Your task to perform on an android device: turn off picture-in-picture Image 0: 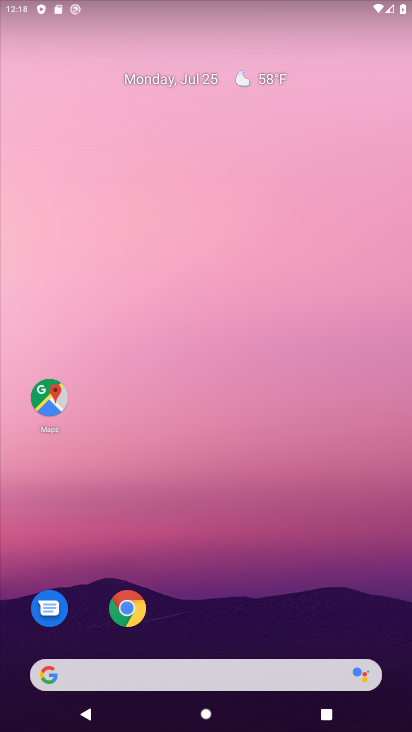
Step 0: click (127, 609)
Your task to perform on an android device: turn off picture-in-picture Image 1: 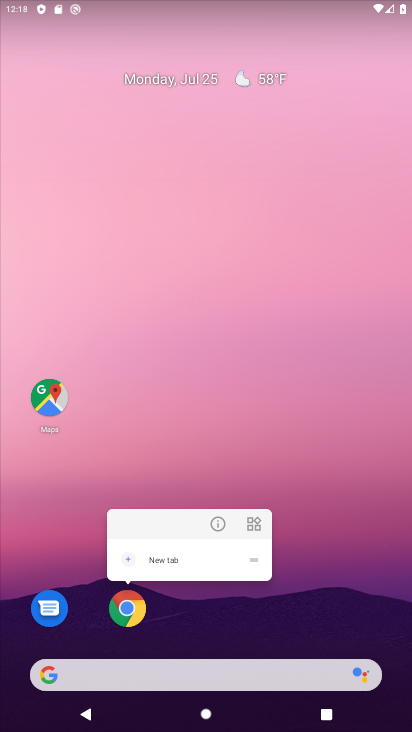
Step 1: click (219, 521)
Your task to perform on an android device: turn off picture-in-picture Image 2: 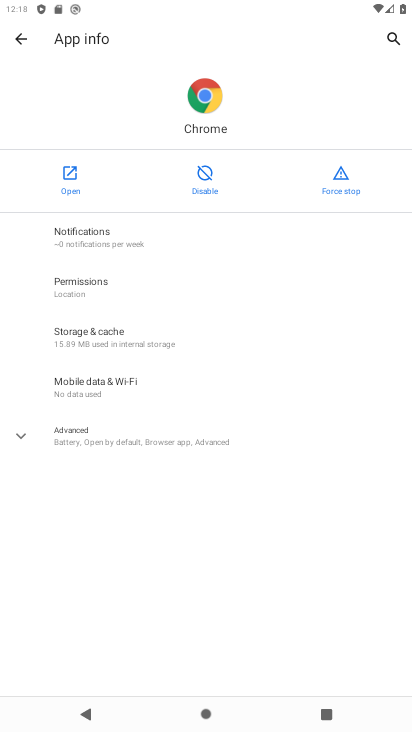
Step 2: click (129, 435)
Your task to perform on an android device: turn off picture-in-picture Image 3: 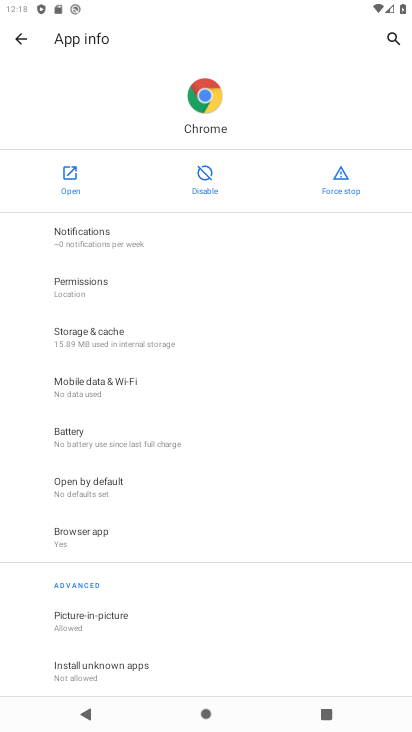
Step 3: click (79, 625)
Your task to perform on an android device: turn off picture-in-picture Image 4: 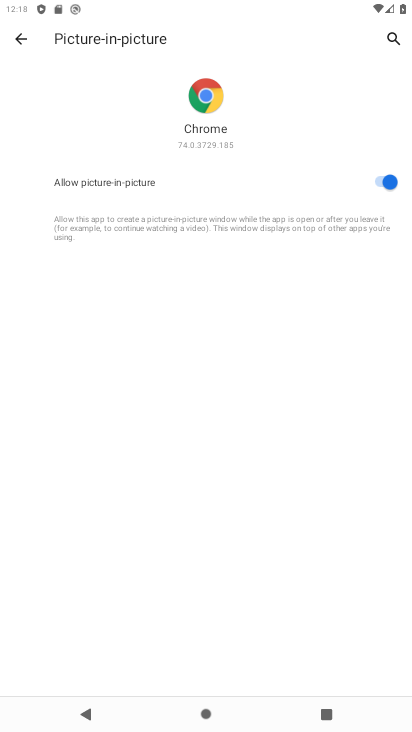
Step 4: click (385, 176)
Your task to perform on an android device: turn off picture-in-picture Image 5: 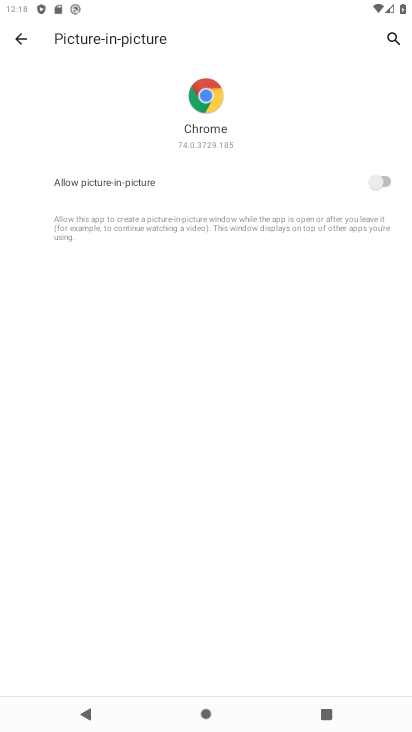
Step 5: task complete